Your task to perform on an android device: Open Google Maps Image 0: 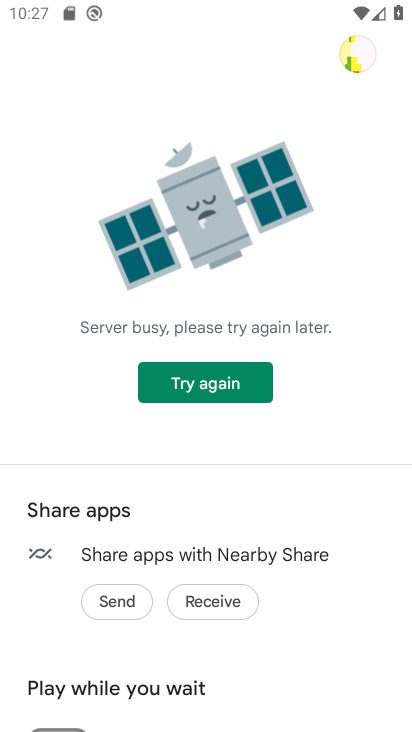
Step 0: press home button
Your task to perform on an android device: Open Google Maps Image 1: 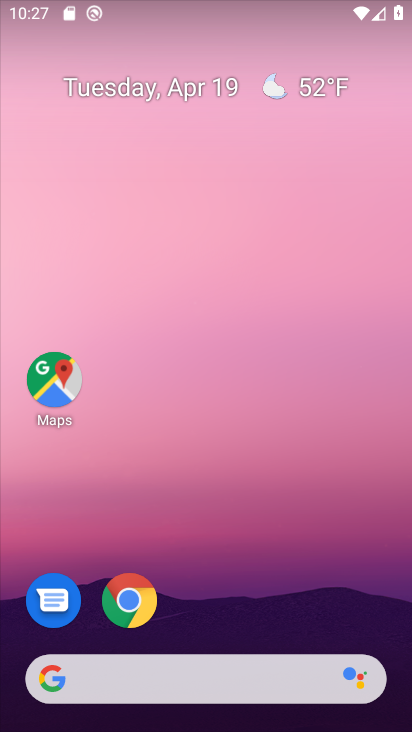
Step 1: drag from (195, 638) to (202, 77)
Your task to perform on an android device: Open Google Maps Image 2: 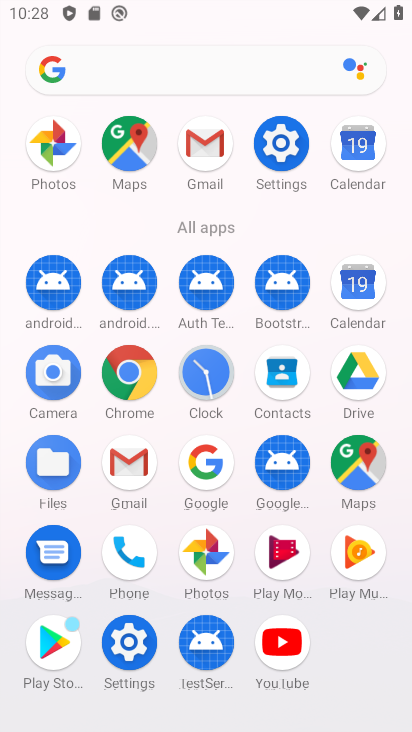
Step 2: click (364, 466)
Your task to perform on an android device: Open Google Maps Image 3: 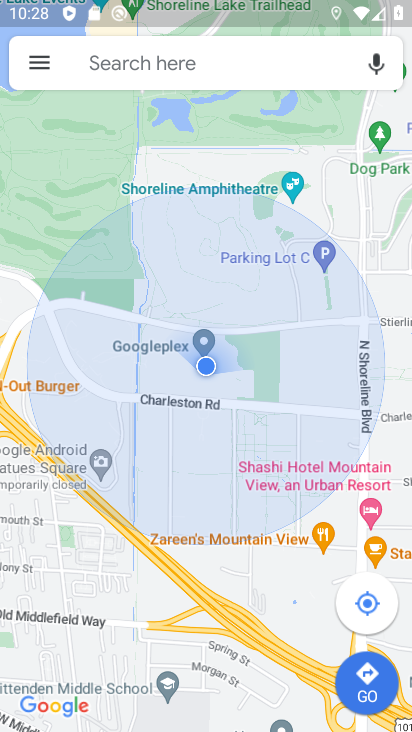
Step 3: task complete